Your task to perform on an android device: turn off smart reply in the gmail app Image 0: 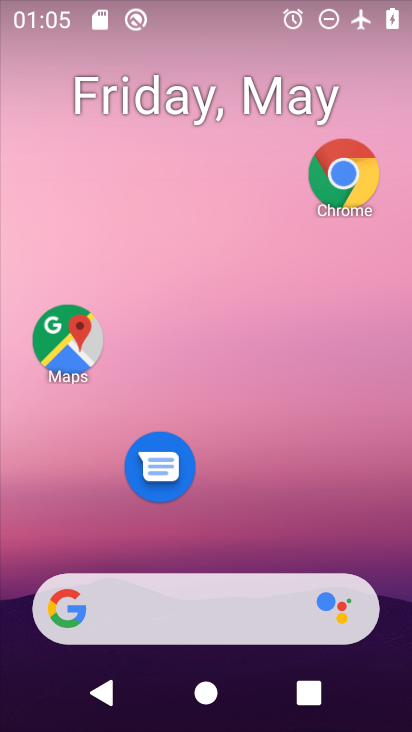
Step 0: drag from (221, 526) to (280, 129)
Your task to perform on an android device: turn off smart reply in the gmail app Image 1: 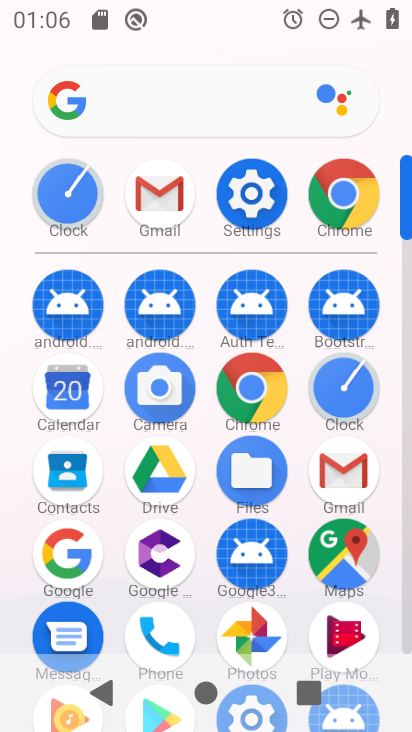
Step 1: click (340, 475)
Your task to perform on an android device: turn off smart reply in the gmail app Image 2: 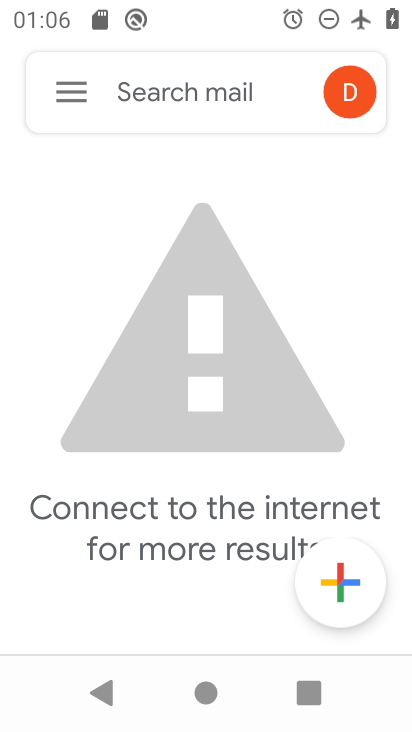
Step 2: click (59, 103)
Your task to perform on an android device: turn off smart reply in the gmail app Image 3: 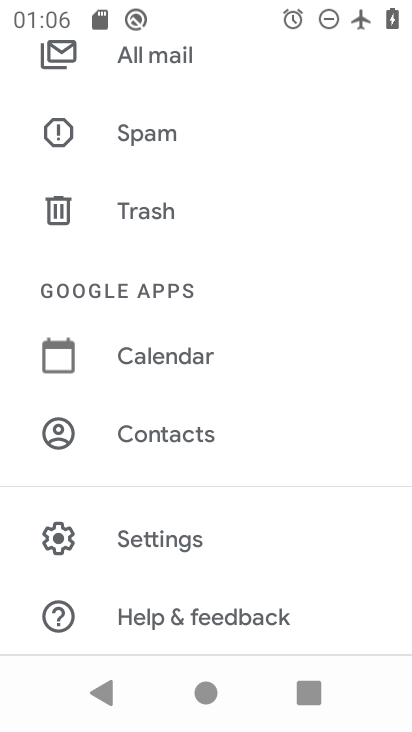
Step 3: click (156, 551)
Your task to perform on an android device: turn off smart reply in the gmail app Image 4: 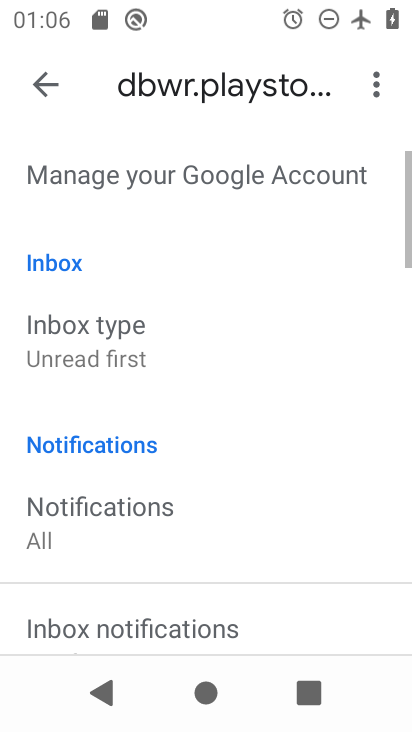
Step 4: task complete